Your task to perform on an android device: see creations saved in the google photos Image 0: 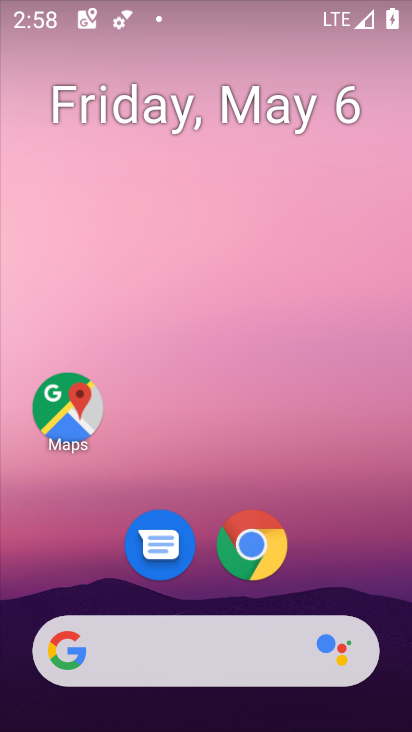
Step 0: drag from (352, 459) to (337, 189)
Your task to perform on an android device: see creations saved in the google photos Image 1: 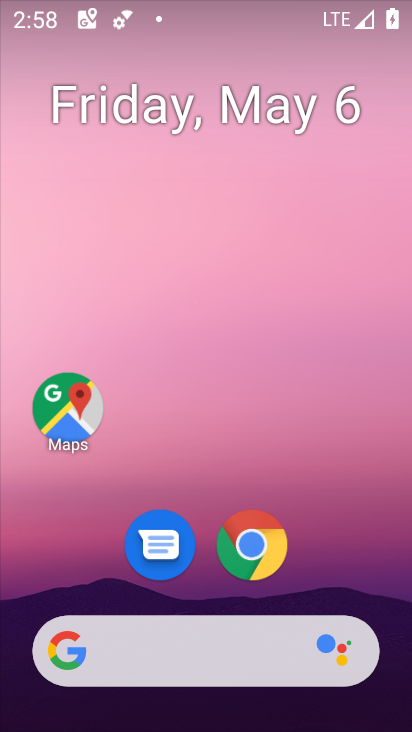
Step 1: drag from (397, 550) to (381, 235)
Your task to perform on an android device: see creations saved in the google photos Image 2: 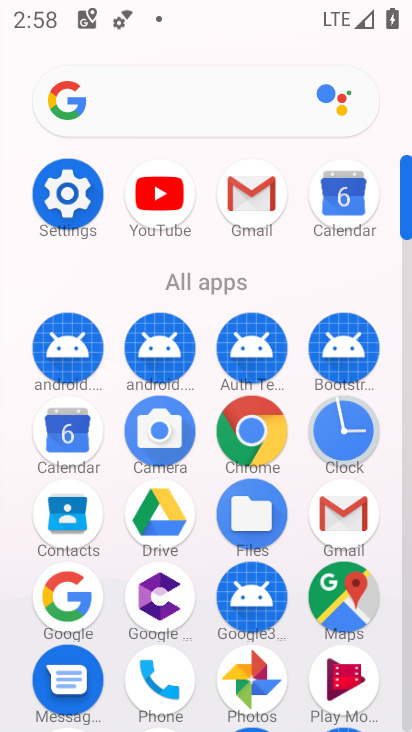
Step 2: click (247, 680)
Your task to perform on an android device: see creations saved in the google photos Image 3: 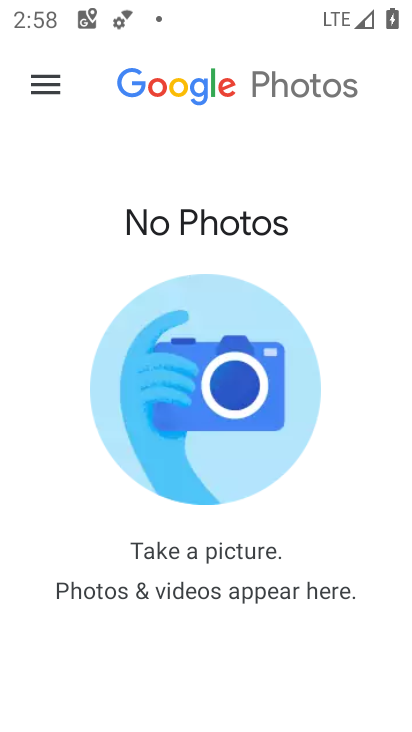
Step 3: press back button
Your task to perform on an android device: see creations saved in the google photos Image 4: 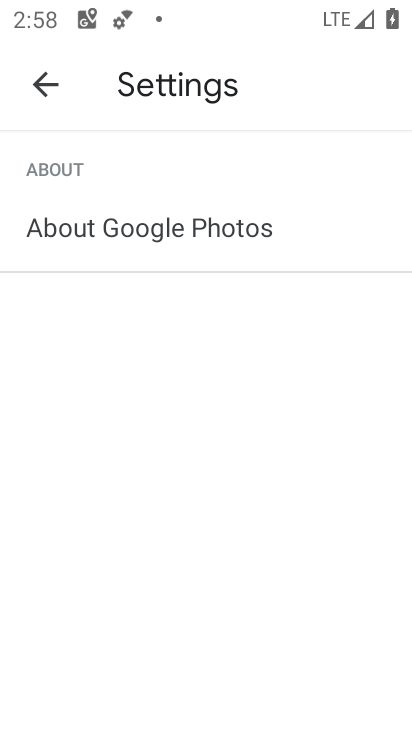
Step 4: press back button
Your task to perform on an android device: see creations saved in the google photos Image 5: 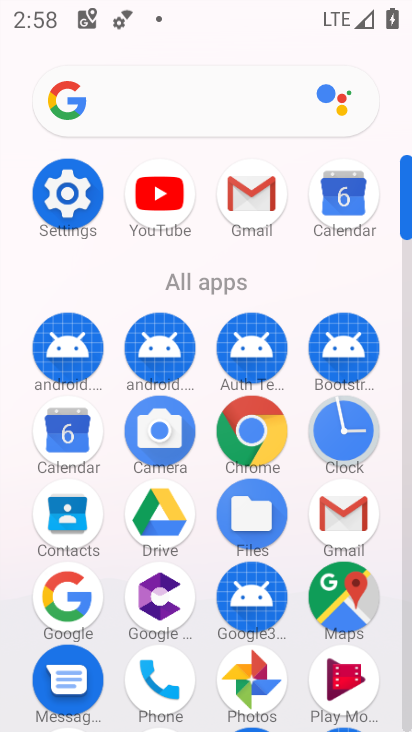
Step 5: click (272, 682)
Your task to perform on an android device: see creations saved in the google photos Image 6: 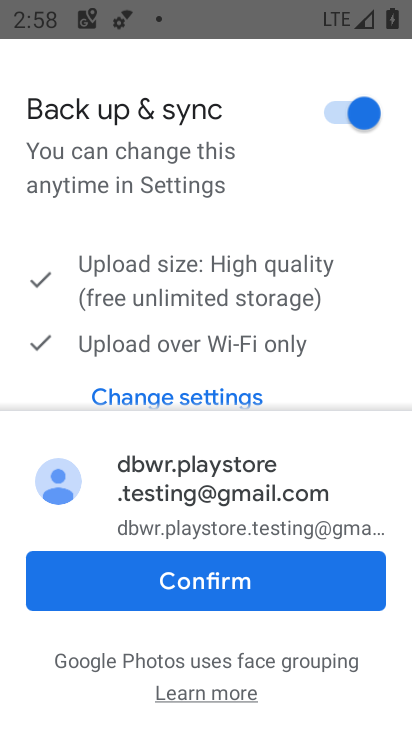
Step 6: click (236, 581)
Your task to perform on an android device: see creations saved in the google photos Image 7: 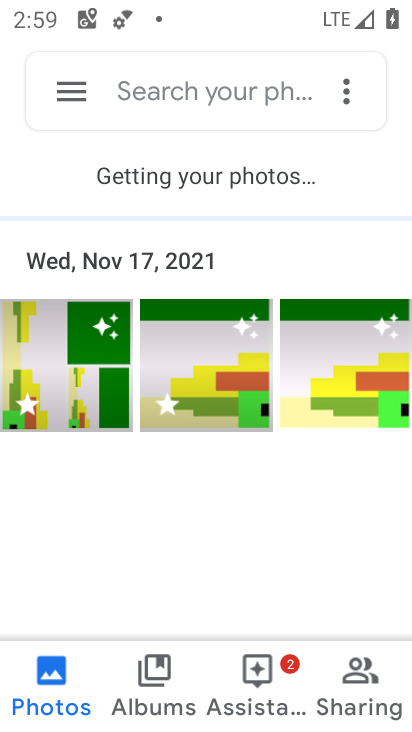
Step 7: task complete